Your task to perform on an android device: Open the stopwatch Image 0: 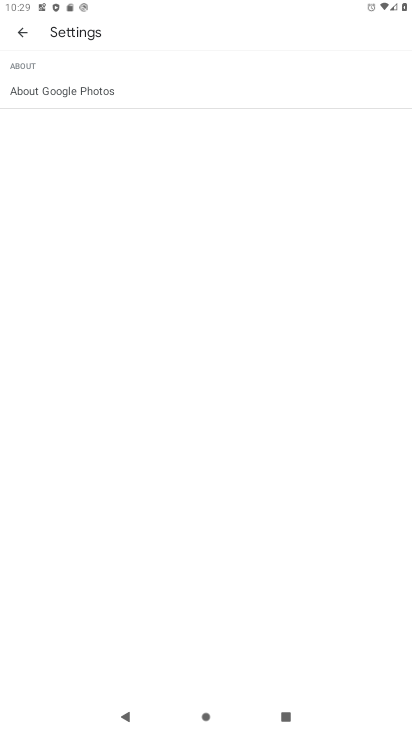
Step 0: press home button
Your task to perform on an android device: Open the stopwatch Image 1: 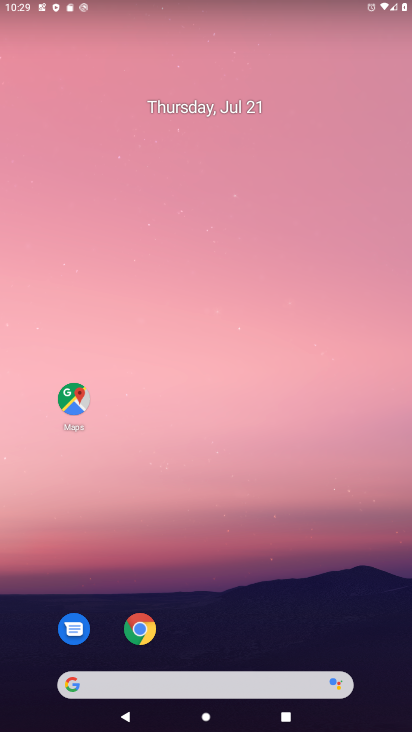
Step 1: drag from (277, 598) to (276, 1)
Your task to perform on an android device: Open the stopwatch Image 2: 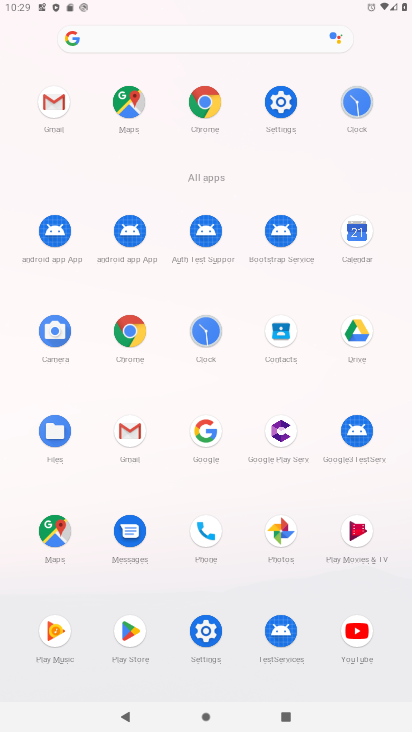
Step 2: click (185, 346)
Your task to perform on an android device: Open the stopwatch Image 3: 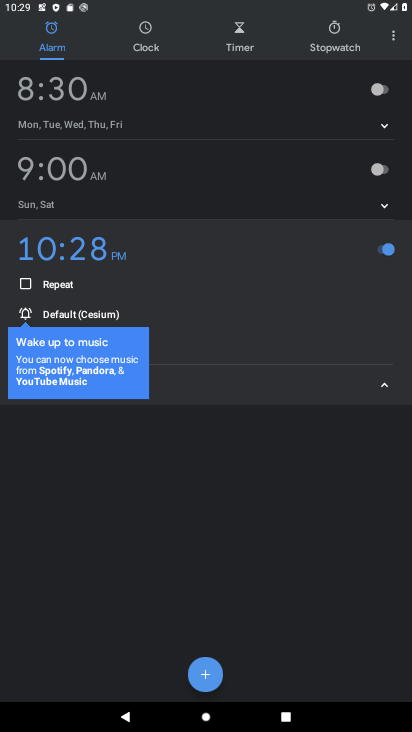
Step 3: click (347, 32)
Your task to perform on an android device: Open the stopwatch Image 4: 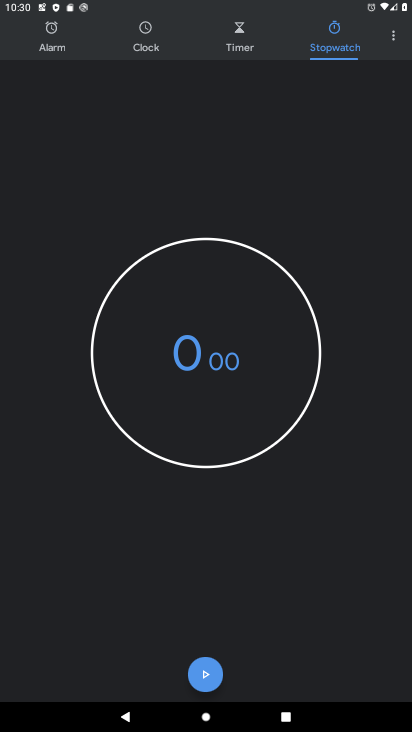
Step 4: task complete